Your task to perform on an android device: open a bookmark in the chrome app Image 0: 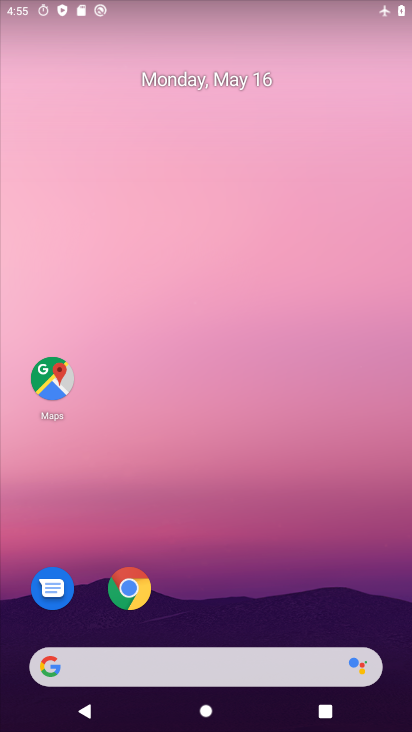
Step 0: drag from (213, 621) to (179, 259)
Your task to perform on an android device: open a bookmark in the chrome app Image 1: 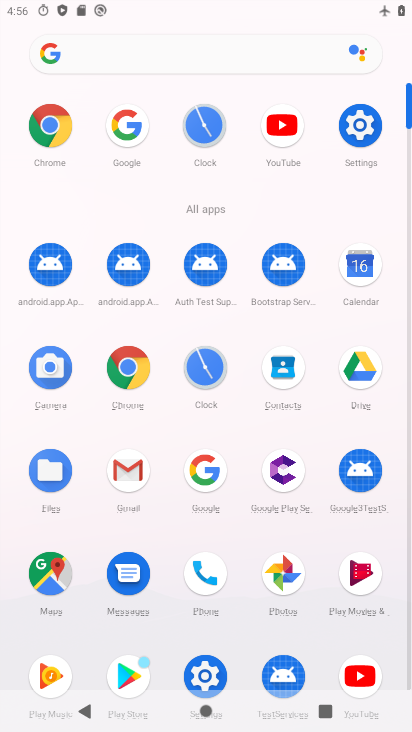
Step 1: click (38, 132)
Your task to perform on an android device: open a bookmark in the chrome app Image 2: 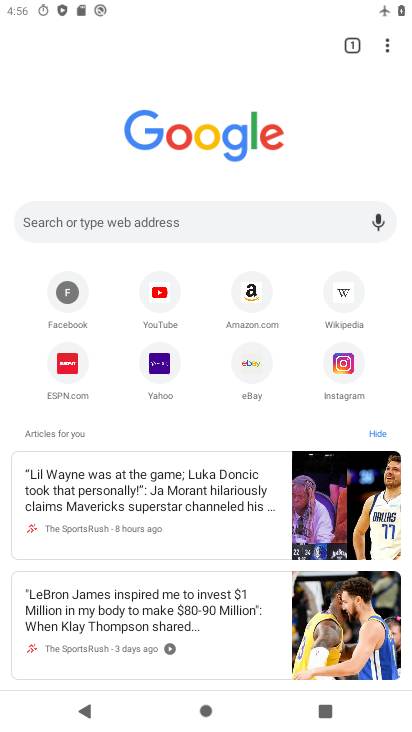
Step 2: click (393, 53)
Your task to perform on an android device: open a bookmark in the chrome app Image 3: 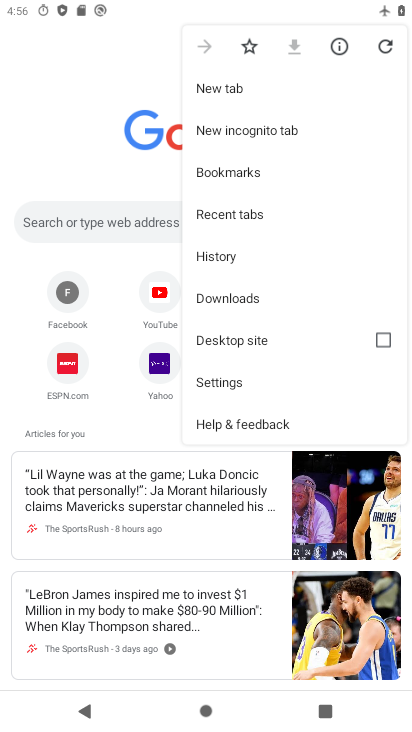
Step 3: click (248, 179)
Your task to perform on an android device: open a bookmark in the chrome app Image 4: 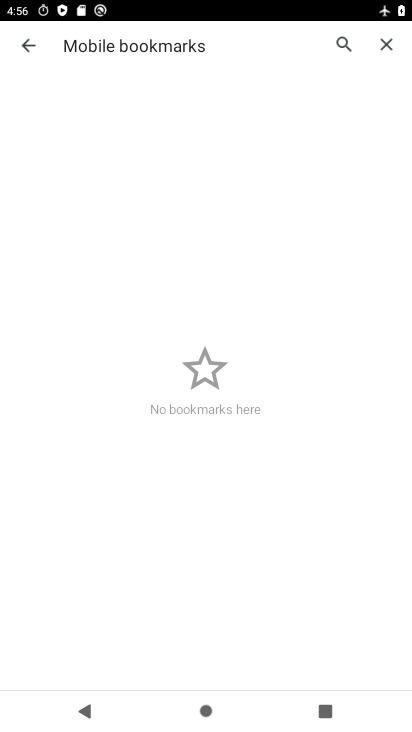
Step 4: task complete